Your task to perform on an android device: open app "Google Translate" Image 0: 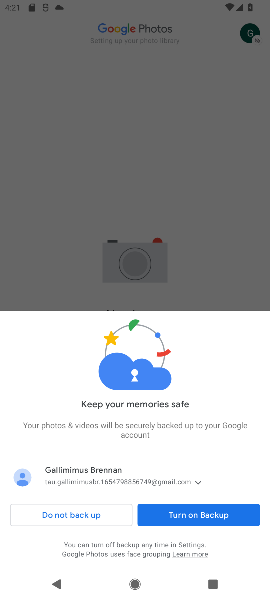
Step 0: press home button
Your task to perform on an android device: open app "Google Translate" Image 1: 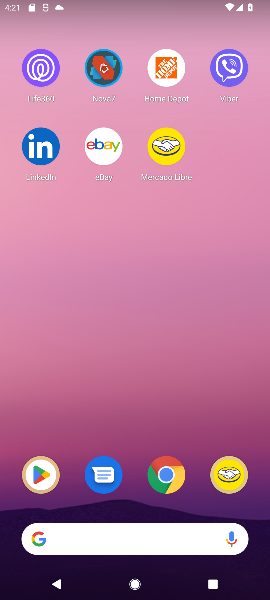
Step 1: click (38, 476)
Your task to perform on an android device: open app "Google Translate" Image 2: 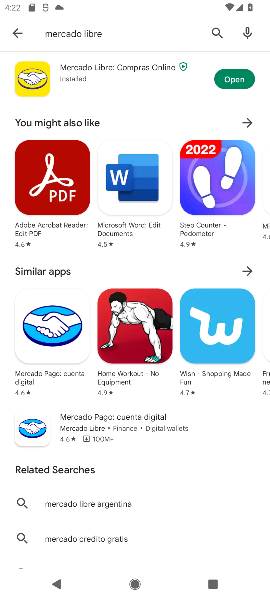
Step 2: click (17, 30)
Your task to perform on an android device: open app "Google Translate" Image 3: 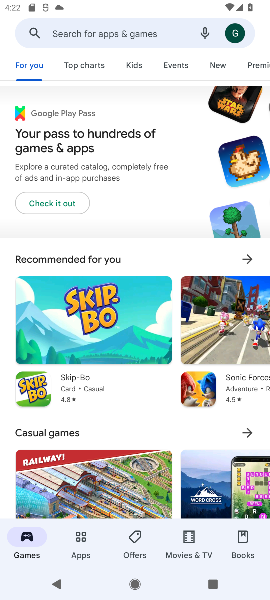
Step 3: click (95, 31)
Your task to perform on an android device: open app "Google Translate" Image 4: 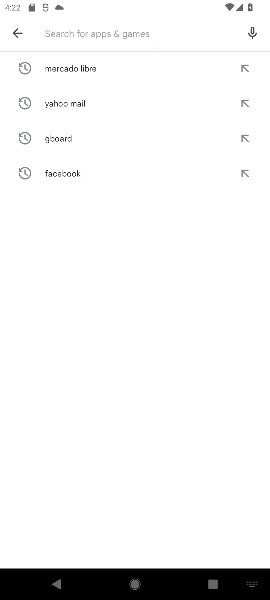
Step 4: type "Google Translate"
Your task to perform on an android device: open app "Google Translate" Image 5: 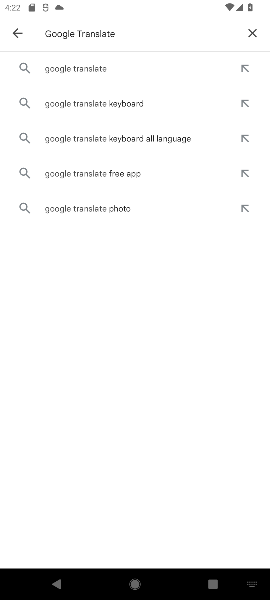
Step 5: click (71, 68)
Your task to perform on an android device: open app "Google Translate" Image 6: 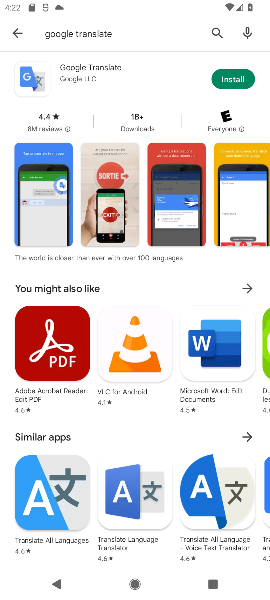
Step 6: task complete